Your task to perform on an android device: change alarm snooze length Image 0: 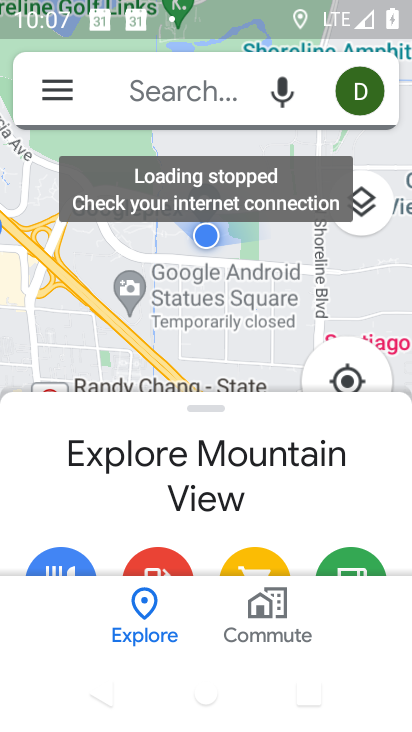
Step 0: press home button
Your task to perform on an android device: change alarm snooze length Image 1: 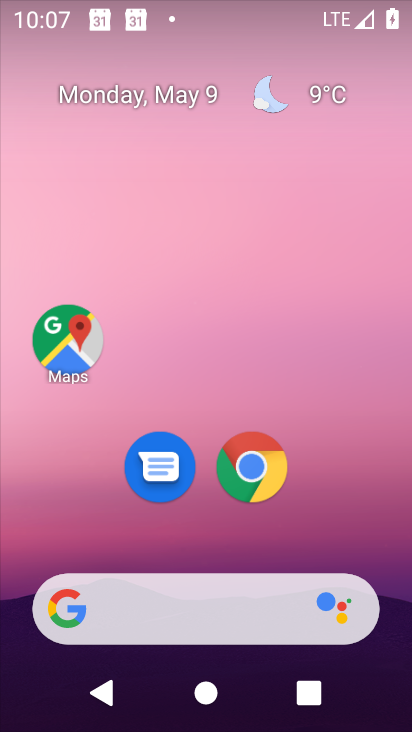
Step 1: drag from (343, 566) to (305, 4)
Your task to perform on an android device: change alarm snooze length Image 2: 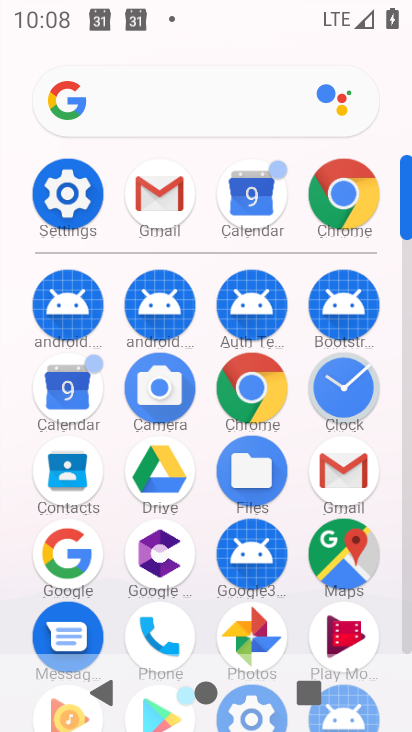
Step 2: click (363, 386)
Your task to perform on an android device: change alarm snooze length Image 3: 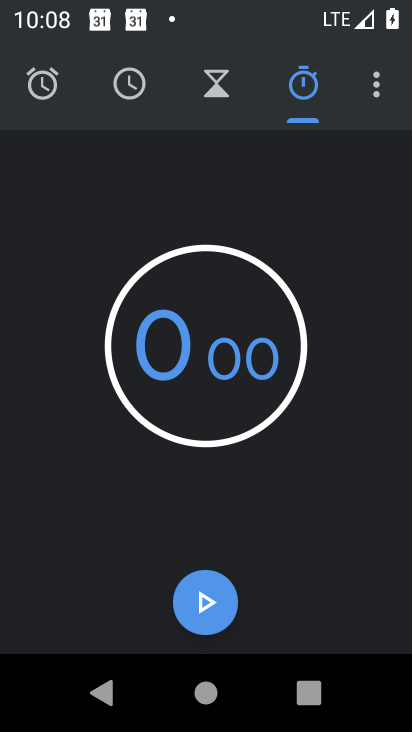
Step 3: click (370, 88)
Your task to perform on an android device: change alarm snooze length Image 4: 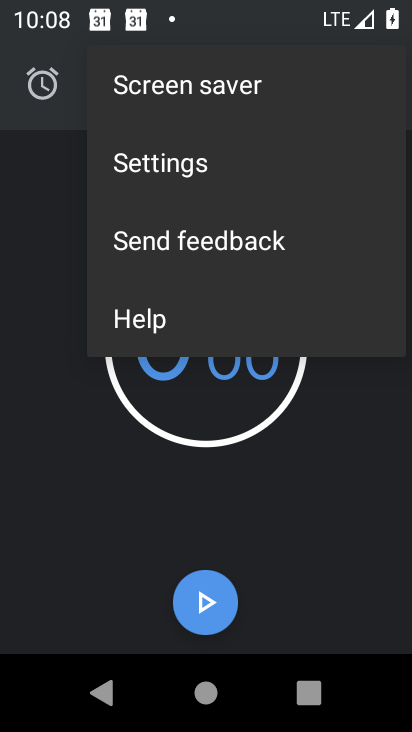
Step 4: click (138, 170)
Your task to perform on an android device: change alarm snooze length Image 5: 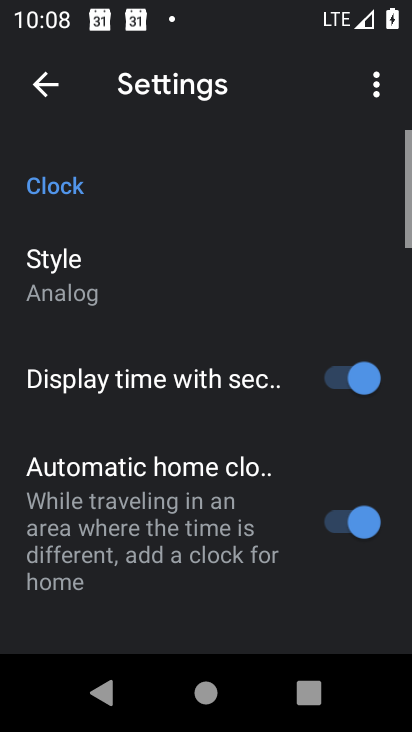
Step 5: drag from (173, 444) to (195, 105)
Your task to perform on an android device: change alarm snooze length Image 6: 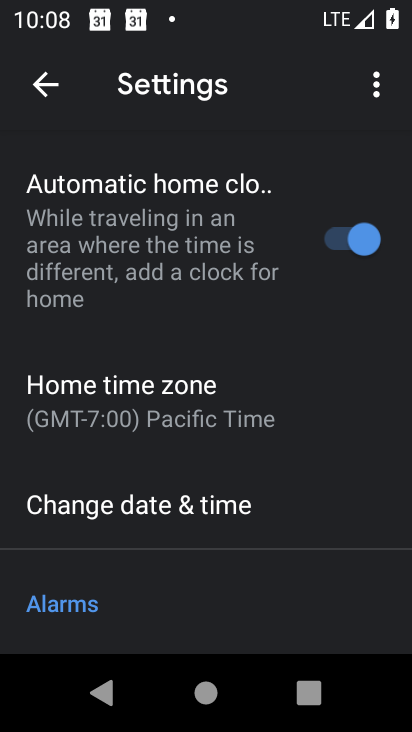
Step 6: drag from (242, 443) to (213, 115)
Your task to perform on an android device: change alarm snooze length Image 7: 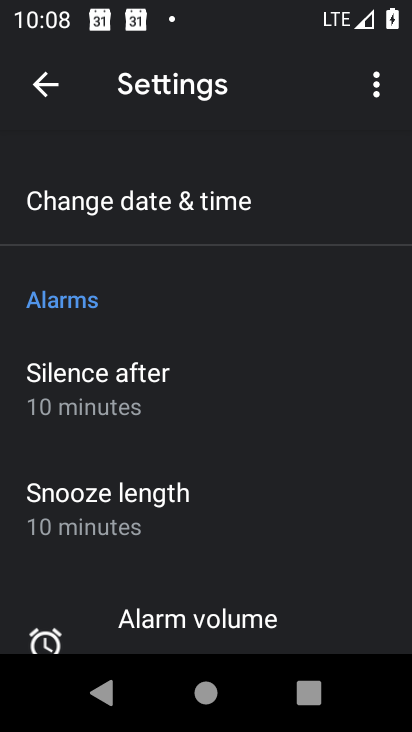
Step 7: drag from (176, 447) to (180, 234)
Your task to perform on an android device: change alarm snooze length Image 8: 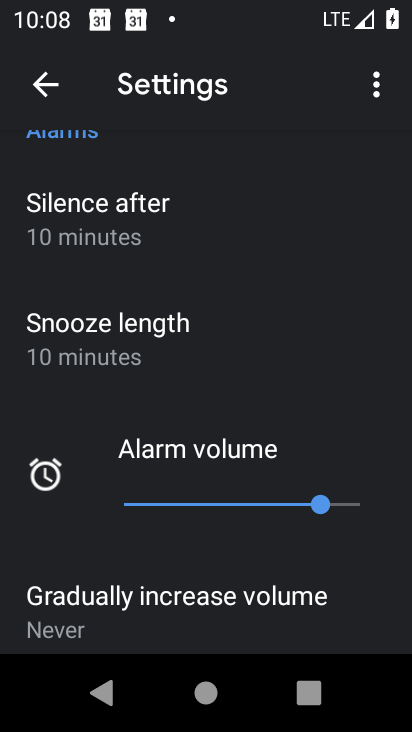
Step 8: click (115, 348)
Your task to perform on an android device: change alarm snooze length Image 9: 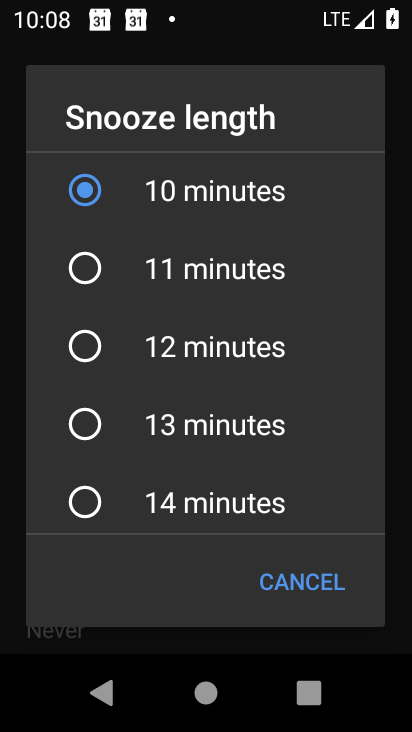
Step 9: click (80, 291)
Your task to perform on an android device: change alarm snooze length Image 10: 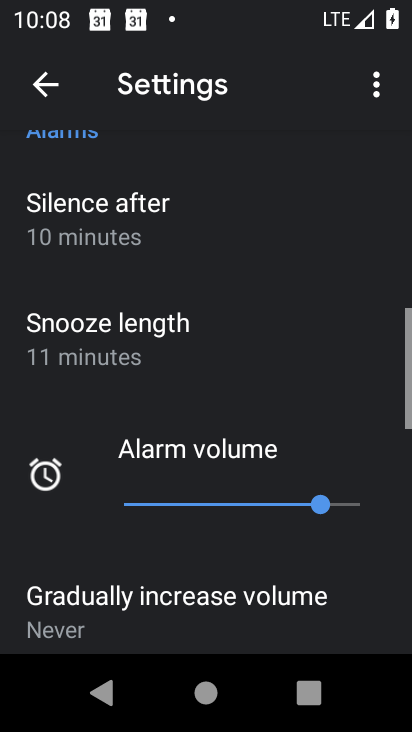
Step 10: task complete